Your task to perform on an android device: turn notification dots off Image 0: 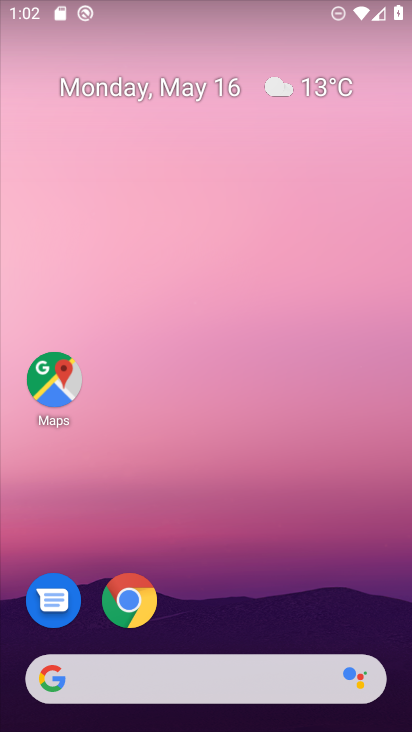
Step 0: drag from (223, 629) to (211, 53)
Your task to perform on an android device: turn notification dots off Image 1: 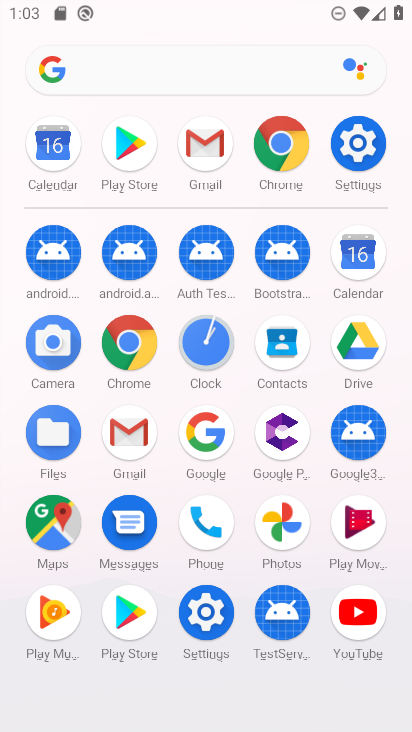
Step 1: click (354, 134)
Your task to perform on an android device: turn notification dots off Image 2: 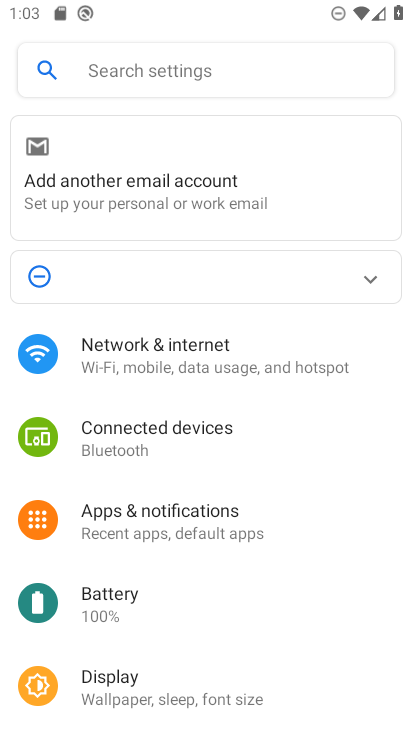
Step 2: click (249, 508)
Your task to perform on an android device: turn notification dots off Image 3: 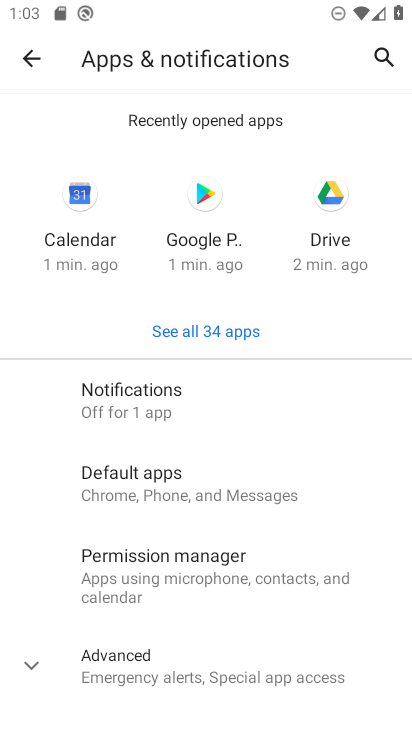
Step 3: click (195, 391)
Your task to perform on an android device: turn notification dots off Image 4: 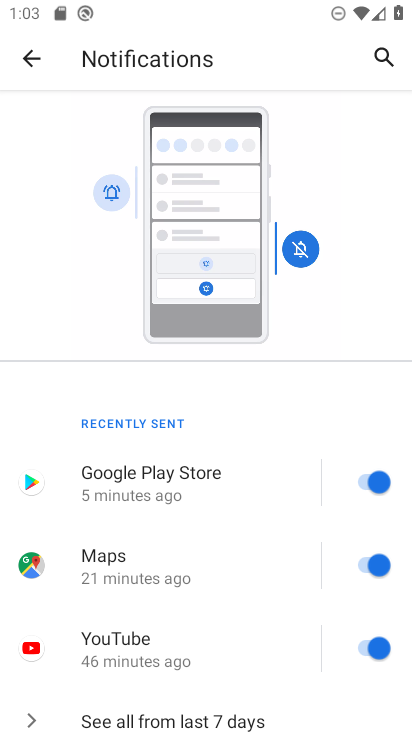
Step 4: drag from (215, 667) to (224, 218)
Your task to perform on an android device: turn notification dots off Image 5: 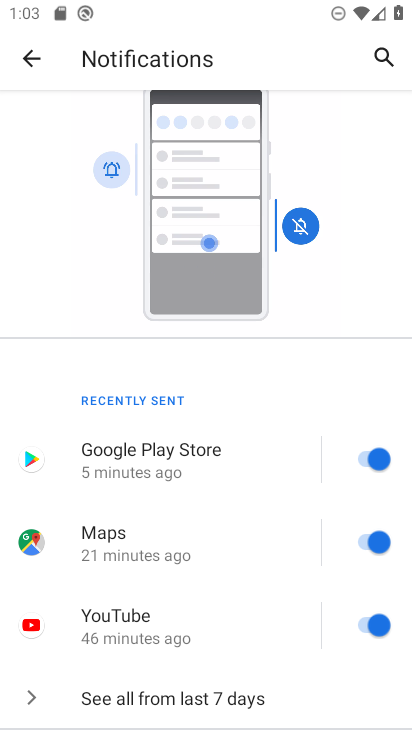
Step 5: drag from (264, 698) to (280, 324)
Your task to perform on an android device: turn notification dots off Image 6: 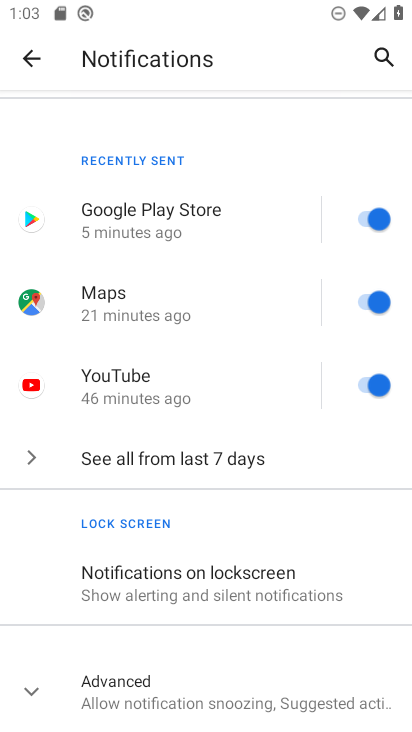
Step 6: click (33, 679)
Your task to perform on an android device: turn notification dots off Image 7: 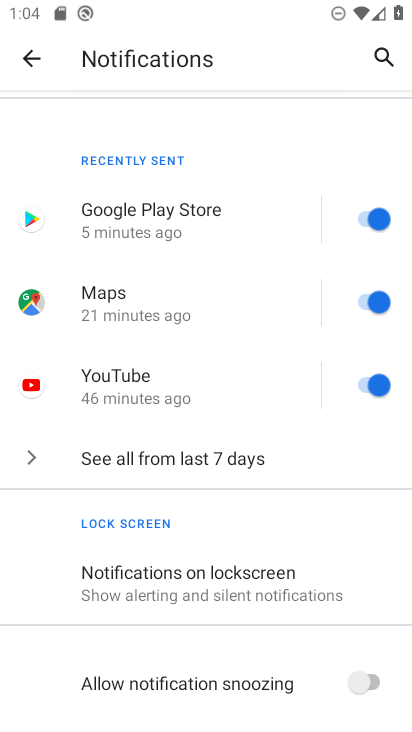
Step 7: task complete